Your task to perform on an android device: open a bookmark in the chrome app Image 0: 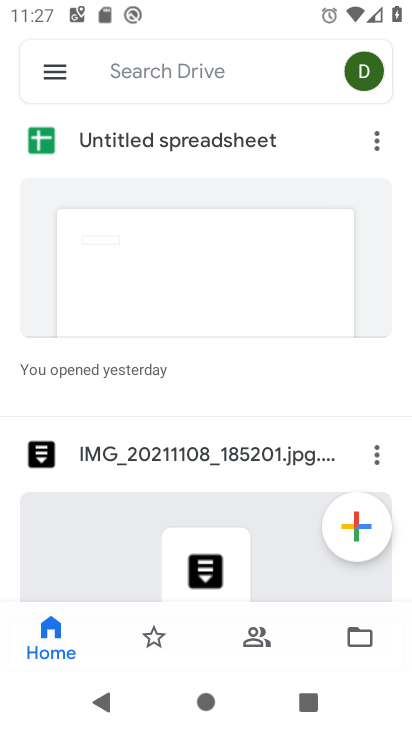
Step 0: press home button
Your task to perform on an android device: open a bookmark in the chrome app Image 1: 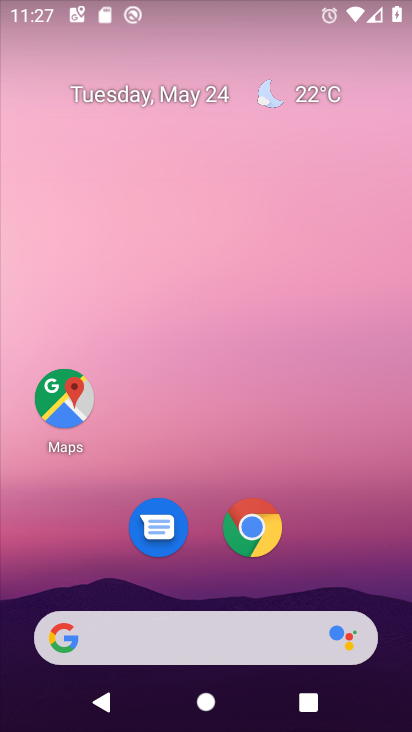
Step 1: click (250, 537)
Your task to perform on an android device: open a bookmark in the chrome app Image 2: 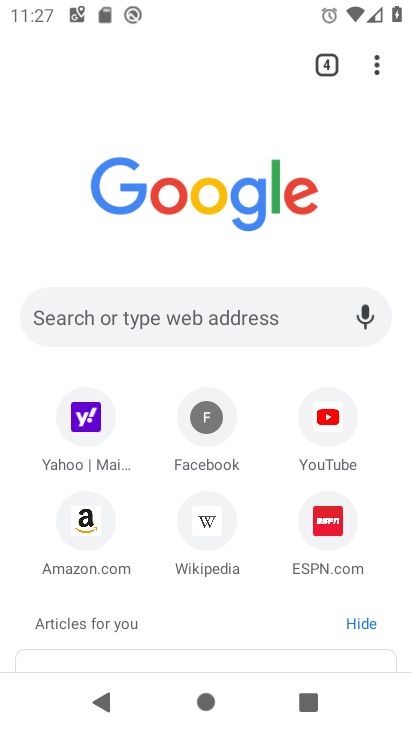
Step 2: task complete